Your task to perform on an android device: empty trash in the gmail app Image 0: 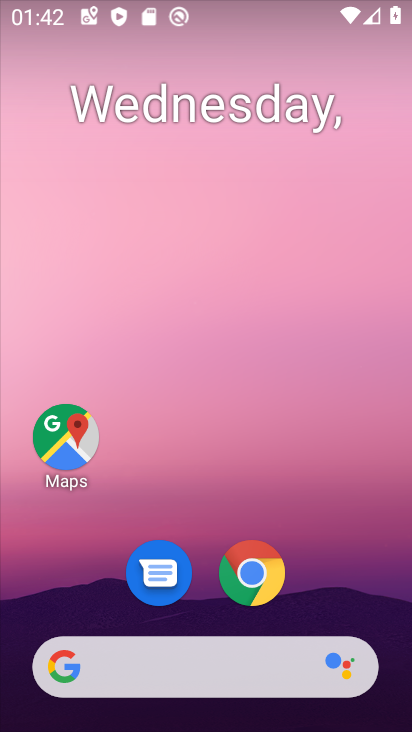
Step 0: drag from (350, 590) to (274, 12)
Your task to perform on an android device: empty trash in the gmail app Image 1: 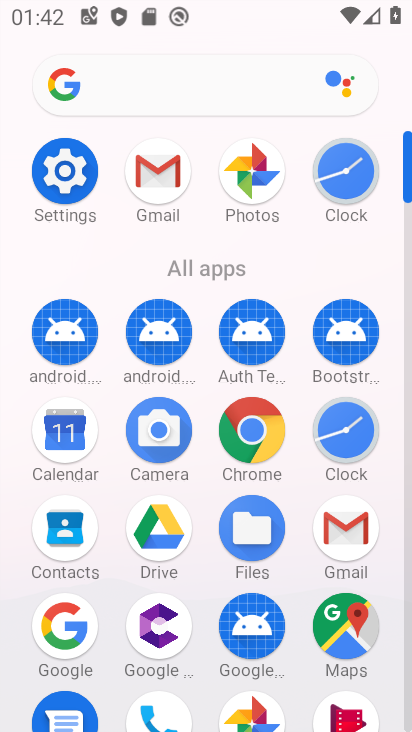
Step 1: click (155, 170)
Your task to perform on an android device: empty trash in the gmail app Image 2: 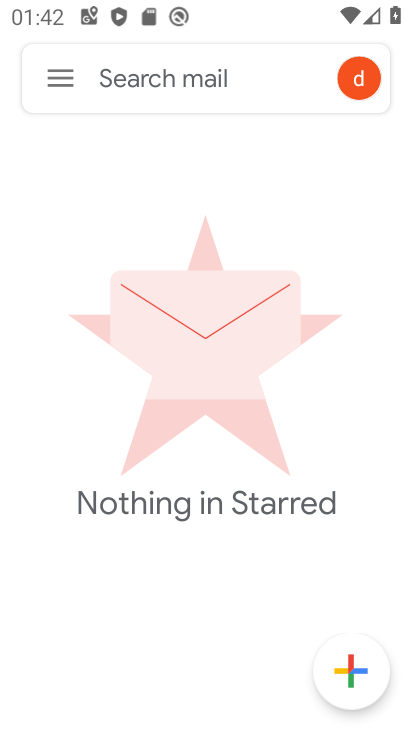
Step 2: click (55, 74)
Your task to perform on an android device: empty trash in the gmail app Image 3: 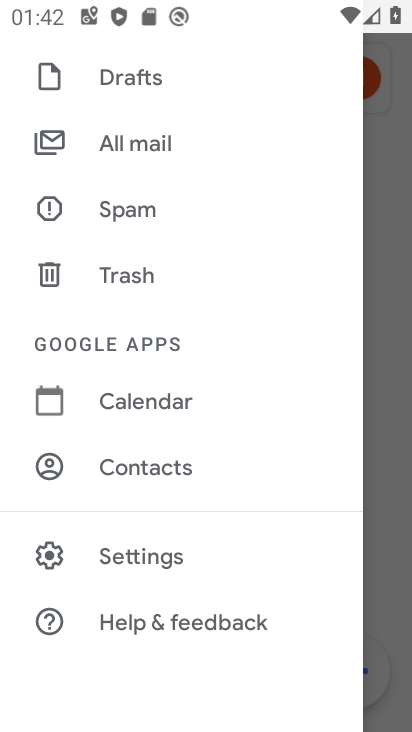
Step 3: click (135, 276)
Your task to perform on an android device: empty trash in the gmail app Image 4: 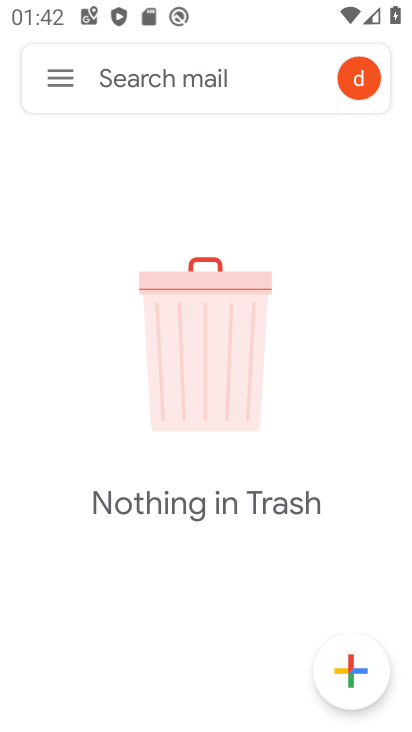
Step 4: task complete